Your task to perform on an android device: toggle data saver in the chrome app Image 0: 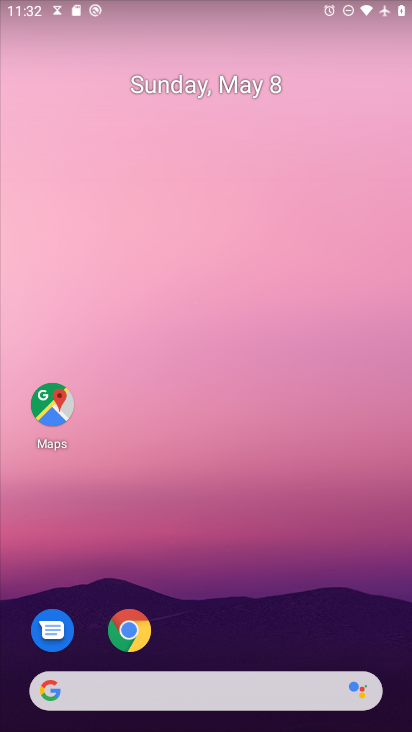
Step 0: drag from (156, 692) to (278, 193)
Your task to perform on an android device: toggle data saver in the chrome app Image 1: 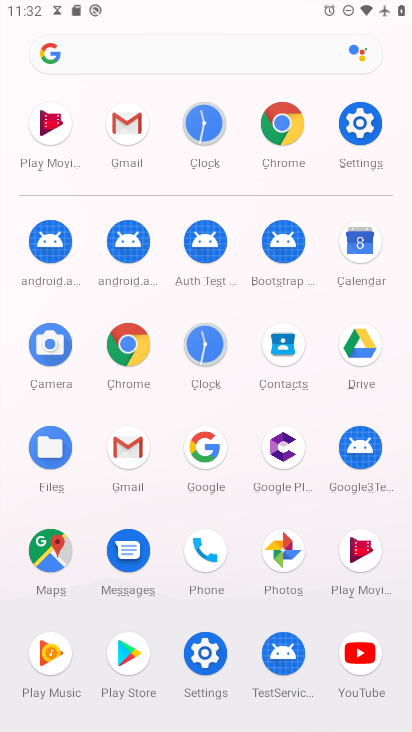
Step 1: click (288, 132)
Your task to perform on an android device: toggle data saver in the chrome app Image 2: 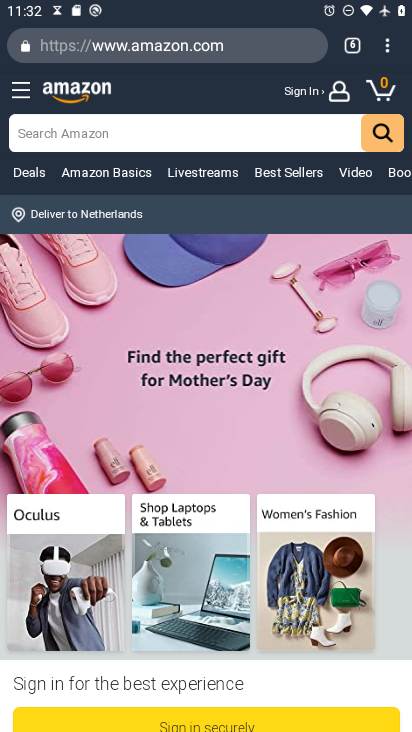
Step 2: drag from (391, 49) to (258, 558)
Your task to perform on an android device: toggle data saver in the chrome app Image 3: 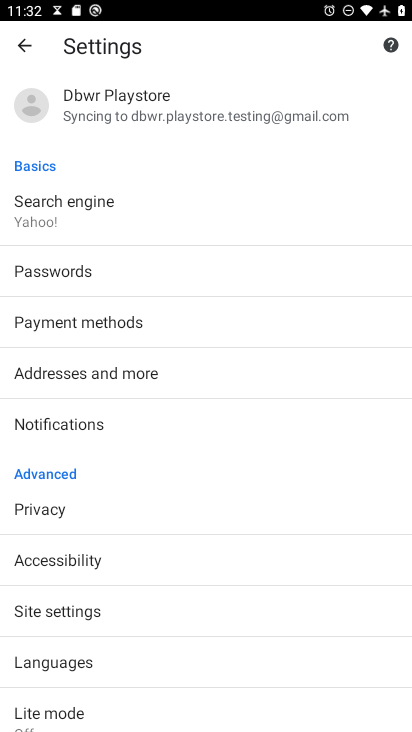
Step 3: click (83, 714)
Your task to perform on an android device: toggle data saver in the chrome app Image 4: 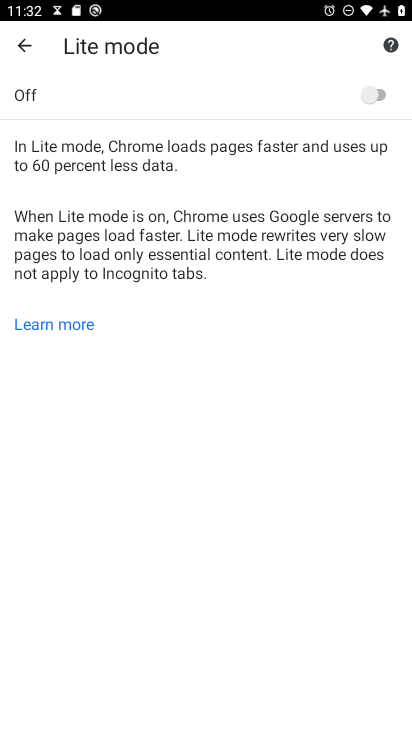
Step 4: click (379, 95)
Your task to perform on an android device: toggle data saver in the chrome app Image 5: 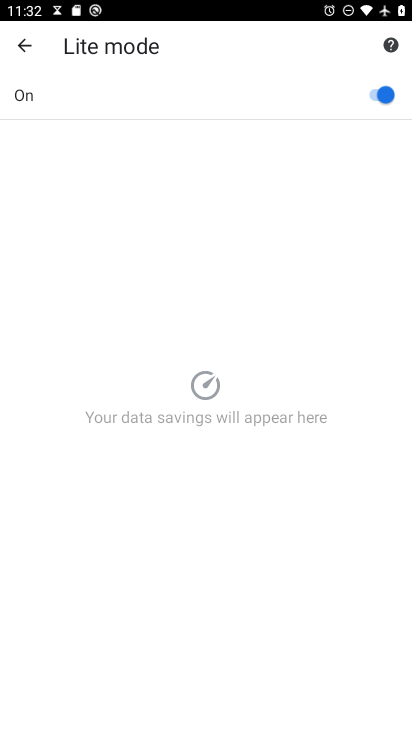
Step 5: task complete